Your task to perform on an android device: turn notification dots on Image 0: 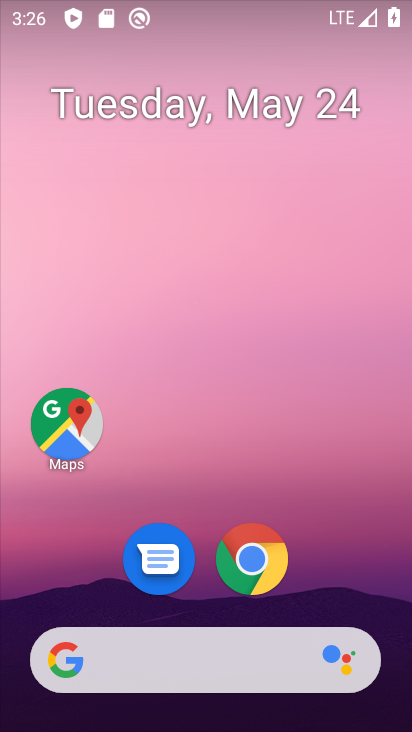
Step 0: drag from (322, 589) to (224, 177)
Your task to perform on an android device: turn notification dots on Image 1: 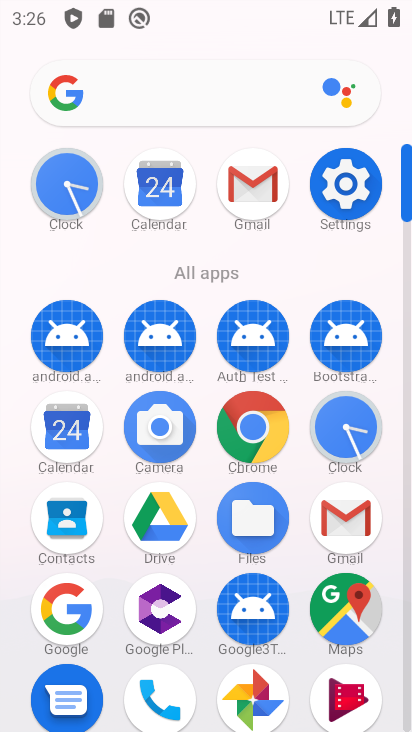
Step 1: click (346, 184)
Your task to perform on an android device: turn notification dots on Image 2: 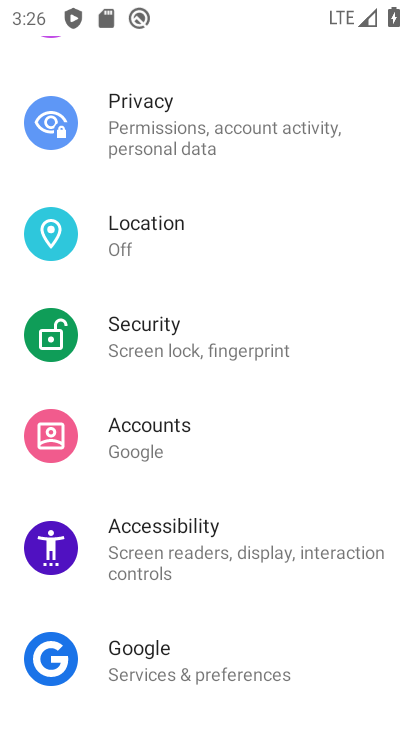
Step 2: drag from (208, 298) to (225, 426)
Your task to perform on an android device: turn notification dots on Image 3: 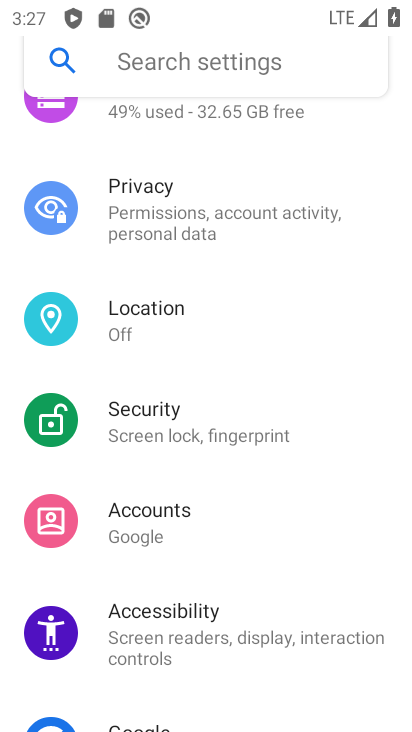
Step 3: drag from (218, 272) to (232, 410)
Your task to perform on an android device: turn notification dots on Image 4: 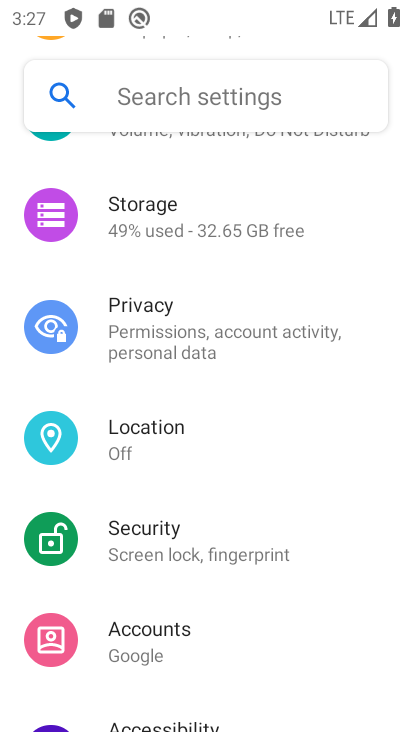
Step 4: drag from (201, 287) to (240, 452)
Your task to perform on an android device: turn notification dots on Image 5: 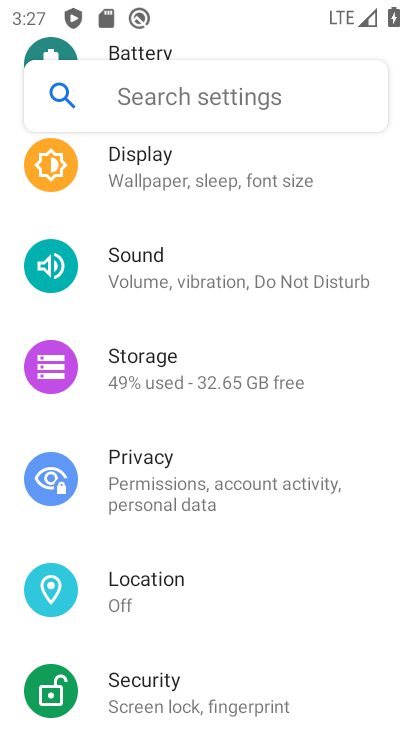
Step 5: drag from (206, 328) to (248, 432)
Your task to perform on an android device: turn notification dots on Image 6: 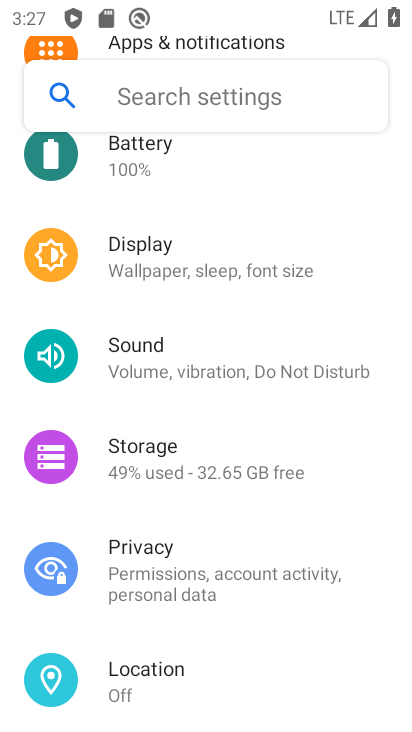
Step 6: drag from (195, 323) to (244, 448)
Your task to perform on an android device: turn notification dots on Image 7: 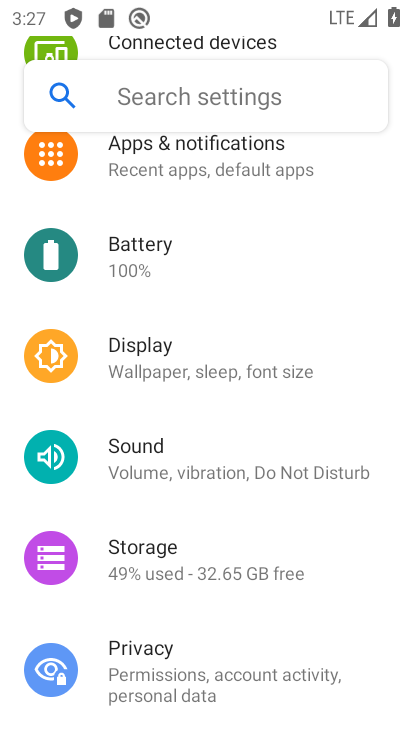
Step 7: drag from (205, 304) to (232, 427)
Your task to perform on an android device: turn notification dots on Image 8: 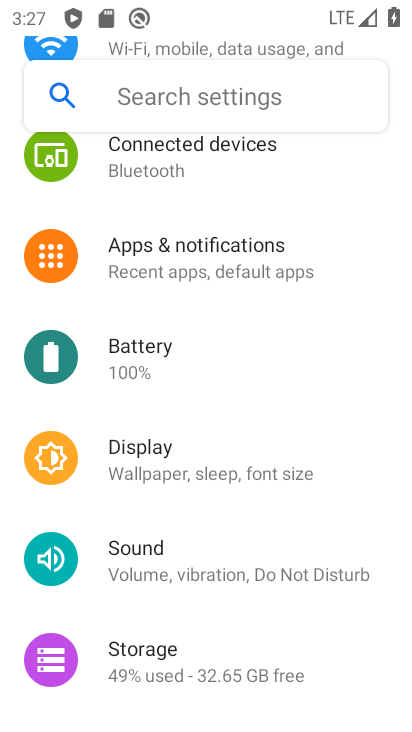
Step 8: click (173, 267)
Your task to perform on an android device: turn notification dots on Image 9: 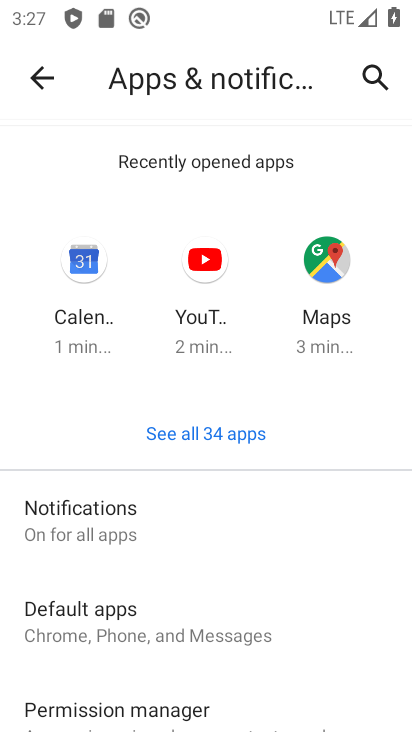
Step 9: click (87, 528)
Your task to perform on an android device: turn notification dots on Image 10: 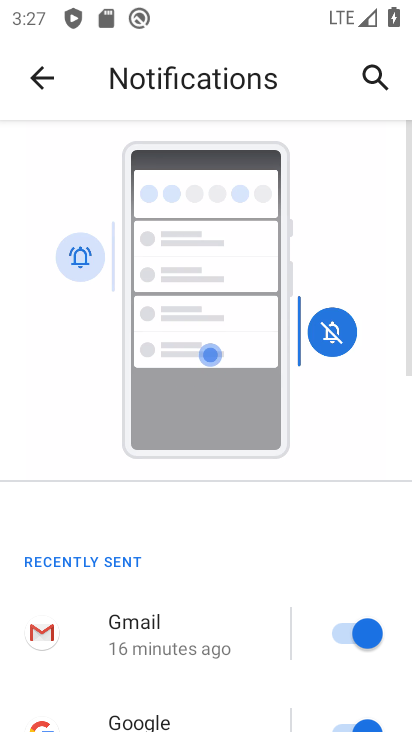
Step 10: drag from (185, 572) to (241, 342)
Your task to perform on an android device: turn notification dots on Image 11: 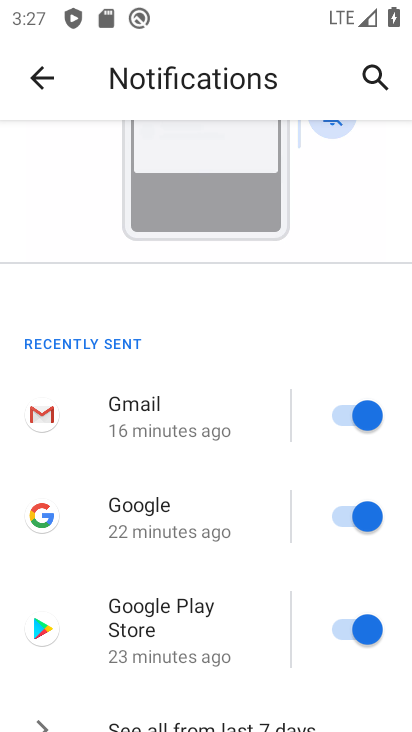
Step 11: drag from (160, 676) to (231, 538)
Your task to perform on an android device: turn notification dots on Image 12: 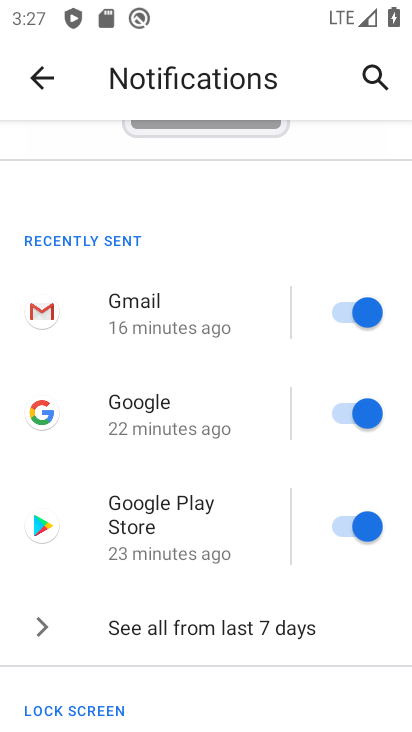
Step 12: drag from (170, 698) to (265, 485)
Your task to perform on an android device: turn notification dots on Image 13: 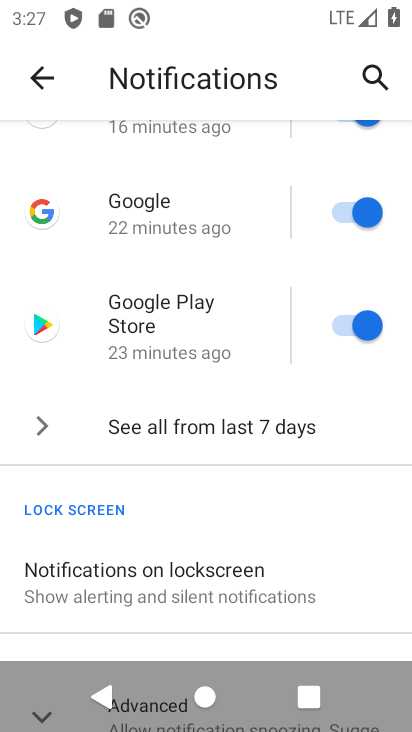
Step 13: drag from (195, 533) to (250, 324)
Your task to perform on an android device: turn notification dots on Image 14: 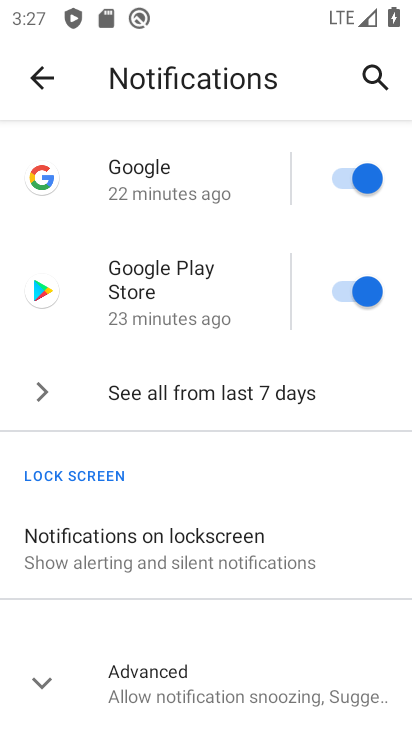
Step 14: click (201, 687)
Your task to perform on an android device: turn notification dots on Image 15: 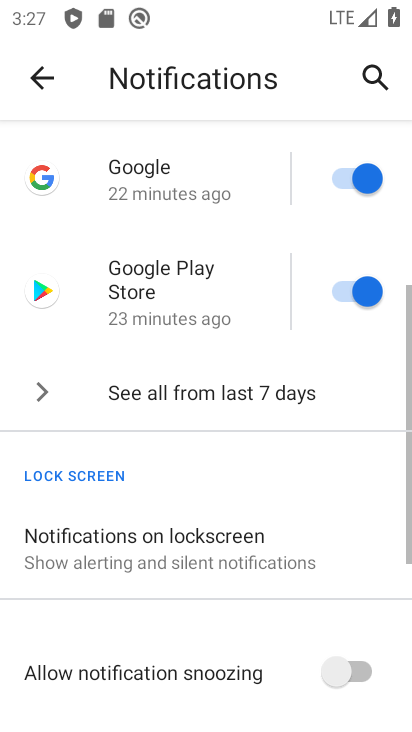
Step 15: task complete